Your task to perform on an android device: open app "Adobe Express: Graphic Design" (install if not already installed) Image 0: 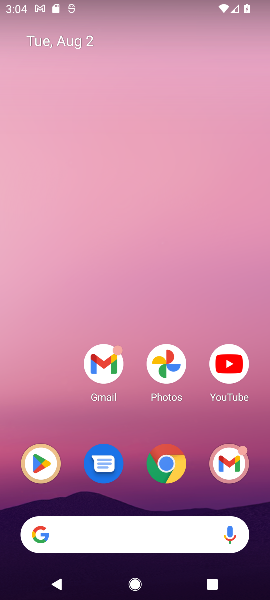
Step 0: press home button
Your task to perform on an android device: open app "Adobe Express: Graphic Design" (install if not already installed) Image 1: 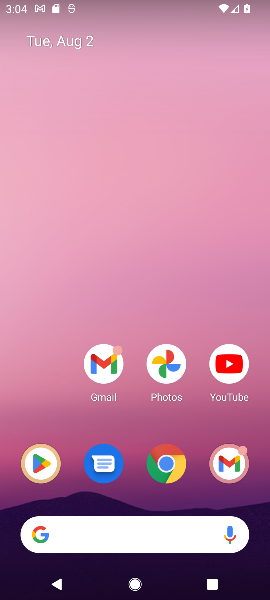
Step 1: click (37, 456)
Your task to perform on an android device: open app "Adobe Express: Graphic Design" (install if not already installed) Image 2: 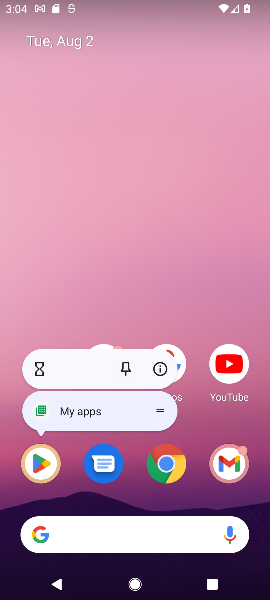
Step 2: click (44, 461)
Your task to perform on an android device: open app "Adobe Express: Graphic Design" (install if not already installed) Image 3: 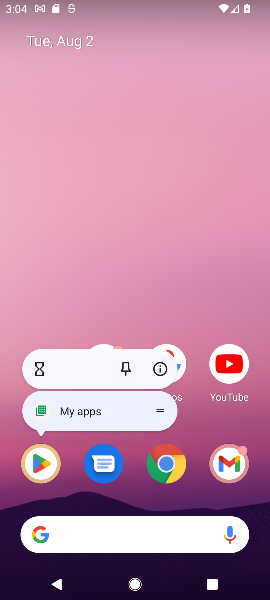
Step 3: click (42, 462)
Your task to perform on an android device: open app "Adobe Express: Graphic Design" (install if not already installed) Image 4: 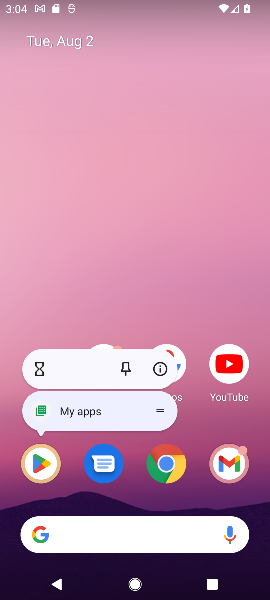
Step 4: click (42, 463)
Your task to perform on an android device: open app "Adobe Express: Graphic Design" (install if not already installed) Image 5: 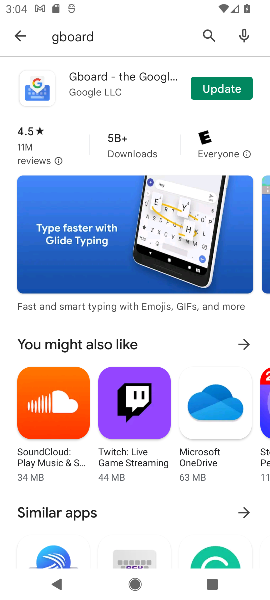
Step 5: click (209, 23)
Your task to perform on an android device: open app "Adobe Express: Graphic Design" (install if not already installed) Image 6: 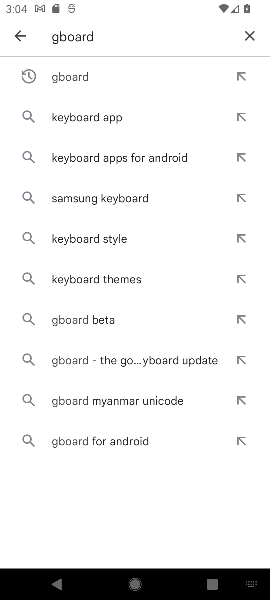
Step 6: click (251, 36)
Your task to perform on an android device: open app "Adobe Express: Graphic Design" (install if not already installed) Image 7: 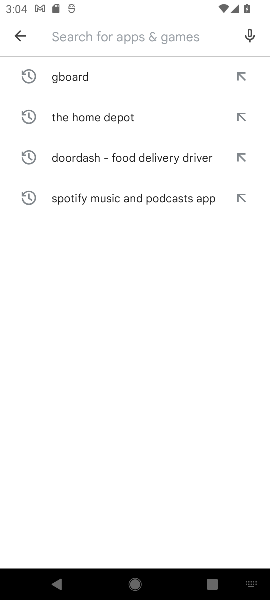
Step 7: type "Adobe Express: Graphic Design"
Your task to perform on an android device: open app "Adobe Express: Graphic Design" (install if not already installed) Image 8: 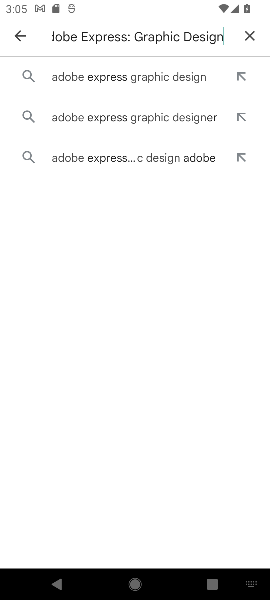
Step 8: click (174, 82)
Your task to perform on an android device: open app "Adobe Express: Graphic Design" (install if not already installed) Image 9: 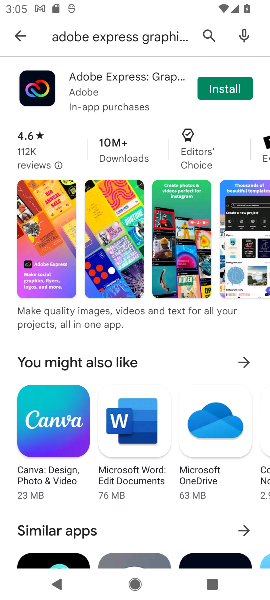
Step 9: click (227, 86)
Your task to perform on an android device: open app "Adobe Express: Graphic Design" (install if not already installed) Image 10: 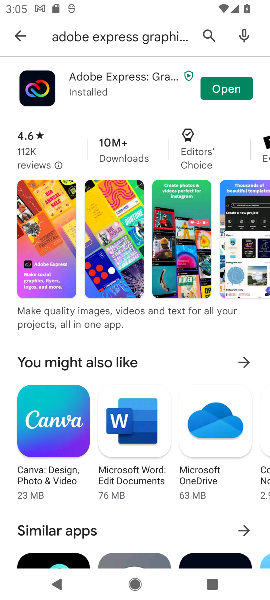
Step 10: click (231, 95)
Your task to perform on an android device: open app "Adobe Express: Graphic Design" (install if not already installed) Image 11: 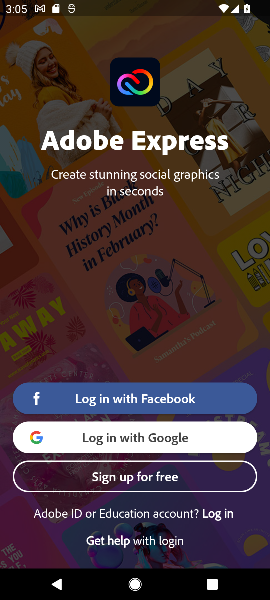
Step 11: task complete